Your task to perform on an android device: toggle sleep mode Image 0: 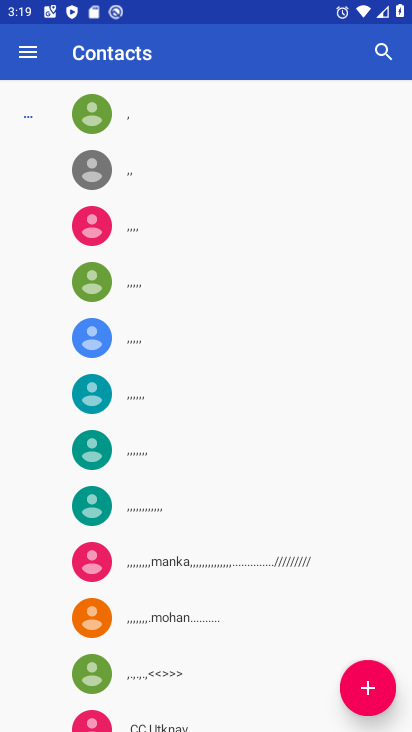
Step 0: press home button
Your task to perform on an android device: toggle sleep mode Image 1: 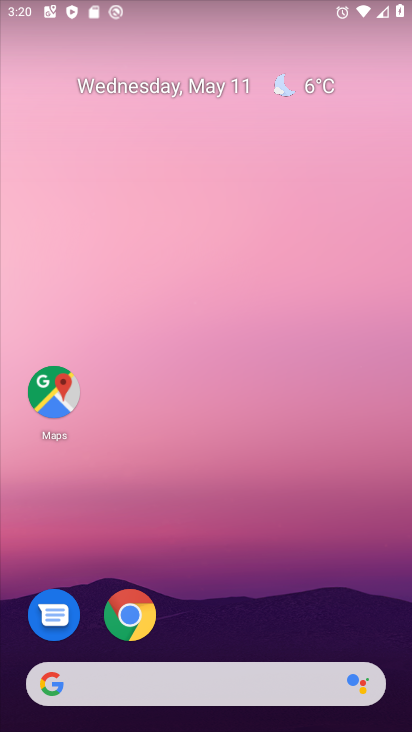
Step 1: drag from (277, 590) to (279, 156)
Your task to perform on an android device: toggle sleep mode Image 2: 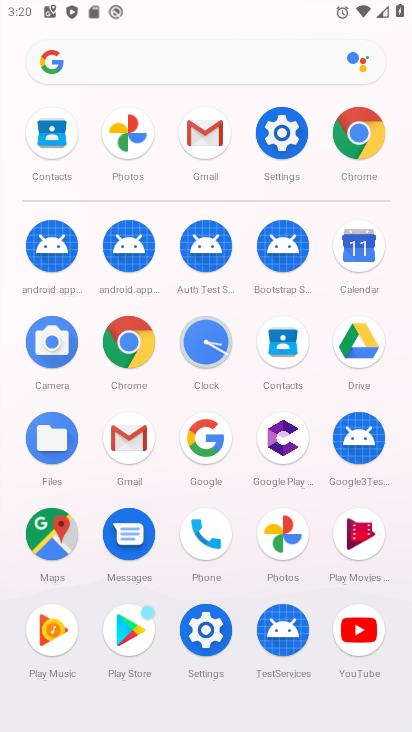
Step 2: click (283, 140)
Your task to perform on an android device: toggle sleep mode Image 3: 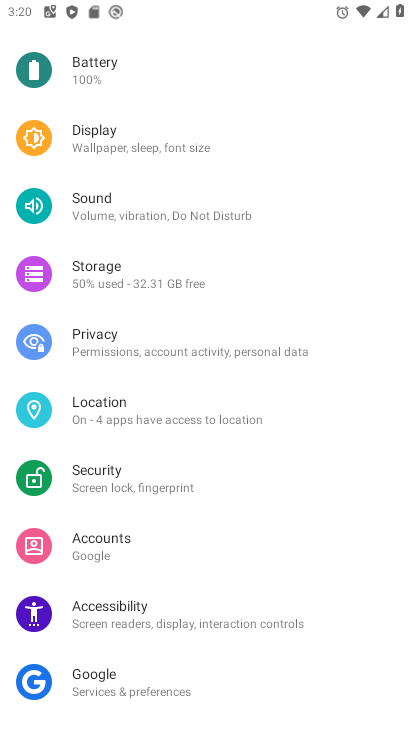
Step 3: drag from (209, 336) to (213, 665)
Your task to perform on an android device: toggle sleep mode Image 4: 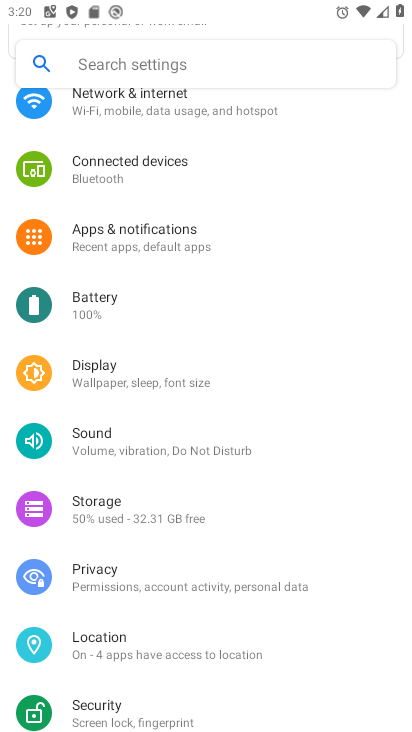
Step 4: drag from (225, 384) to (221, 660)
Your task to perform on an android device: toggle sleep mode Image 5: 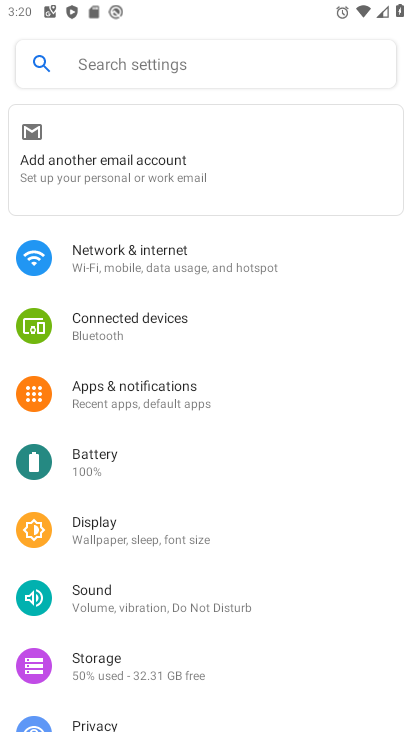
Step 5: drag from (218, 652) to (247, 301)
Your task to perform on an android device: toggle sleep mode Image 6: 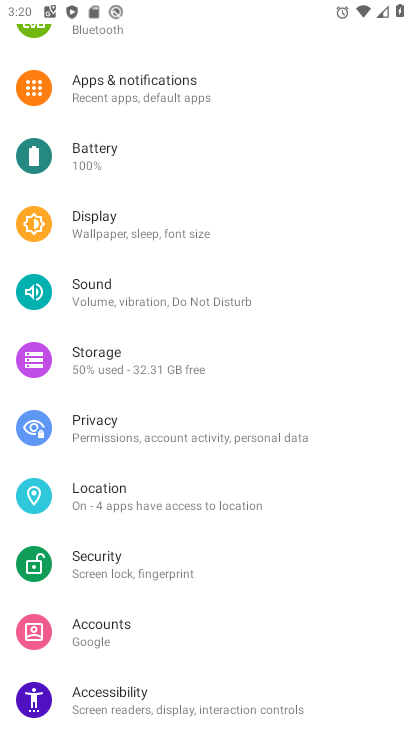
Step 6: click (167, 215)
Your task to perform on an android device: toggle sleep mode Image 7: 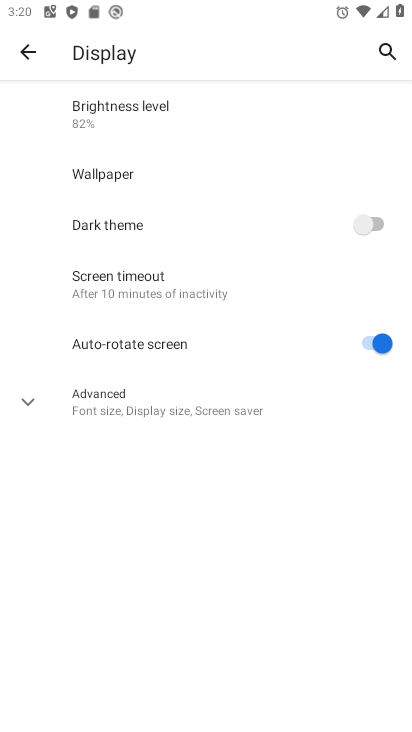
Step 7: click (156, 277)
Your task to perform on an android device: toggle sleep mode Image 8: 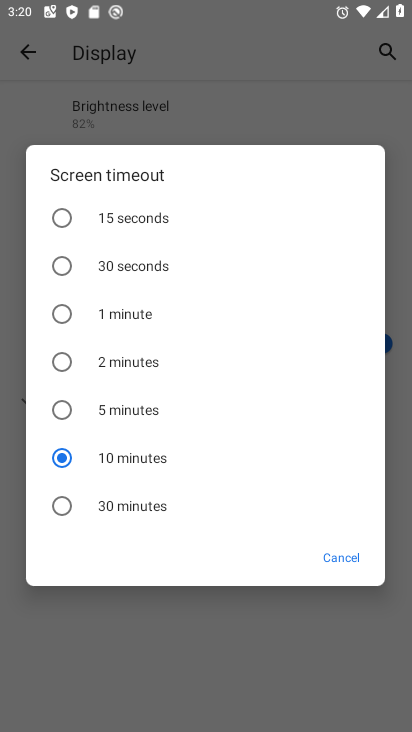
Step 8: click (127, 502)
Your task to perform on an android device: toggle sleep mode Image 9: 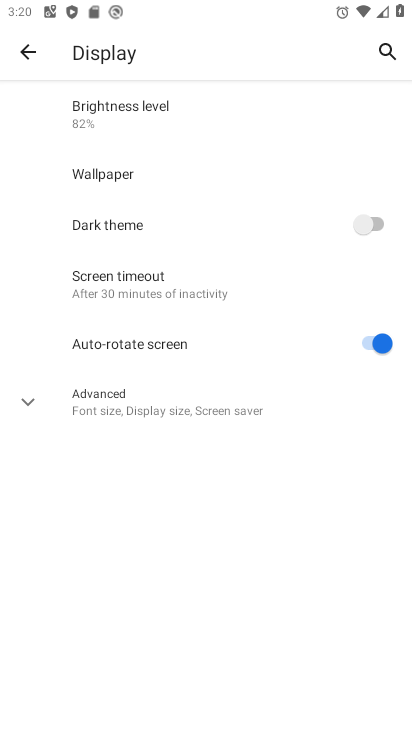
Step 9: task complete